Your task to perform on an android device: Go to CNN.com Image 0: 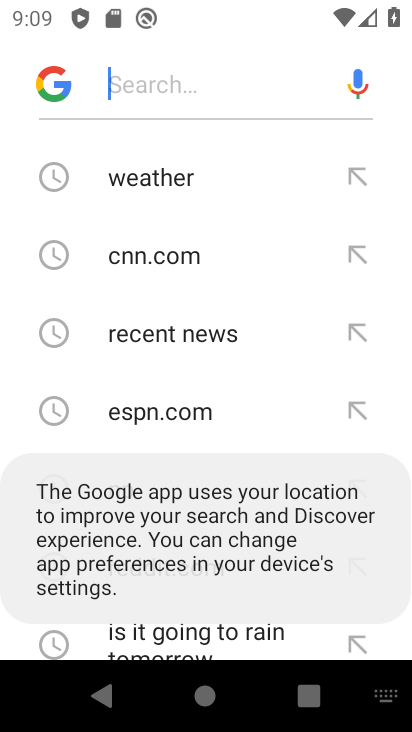
Step 0: press home button
Your task to perform on an android device: Go to CNN.com Image 1: 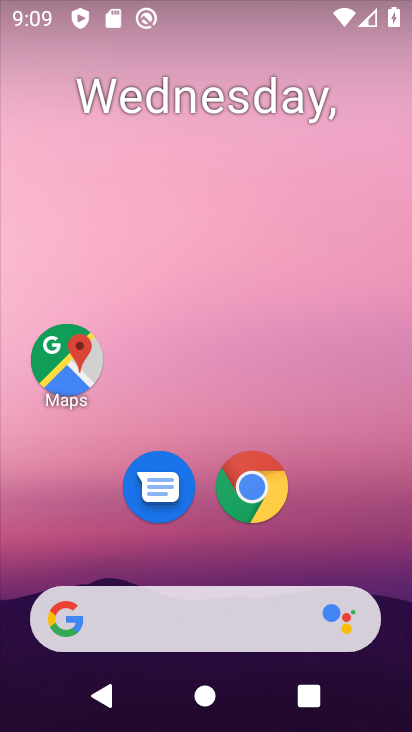
Step 1: drag from (327, 269) to (347, 45)
Your task to perform on an android device: Go to CNN.com Image 2: 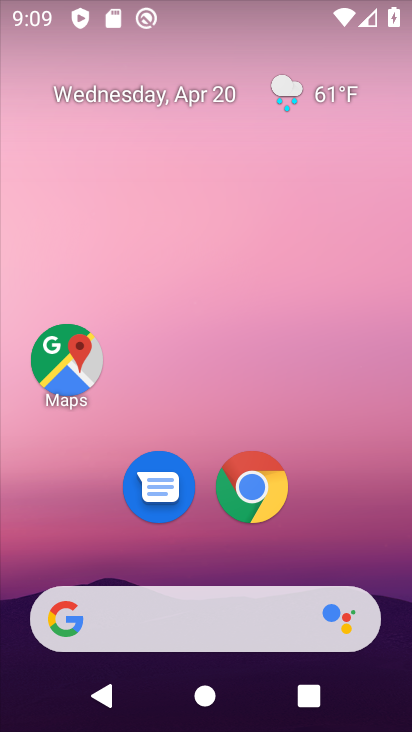
Step 2: click (236, 480)
Your task to perform on an android device: Go to CNN.com Image 3: 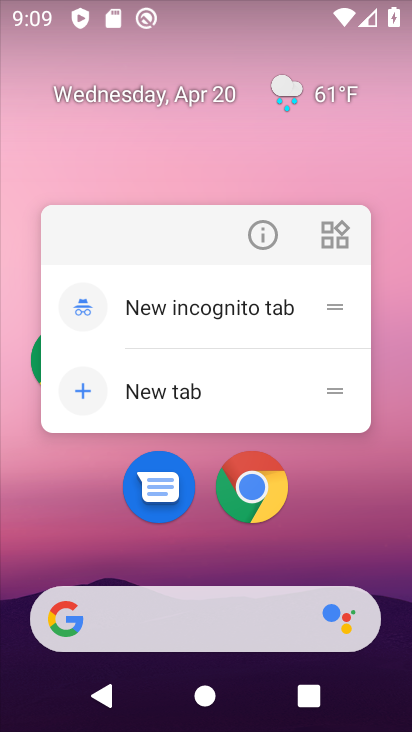
Step 3: click (230, 477)
Your task to perform on an android device: Go to CNN.com Image 4: 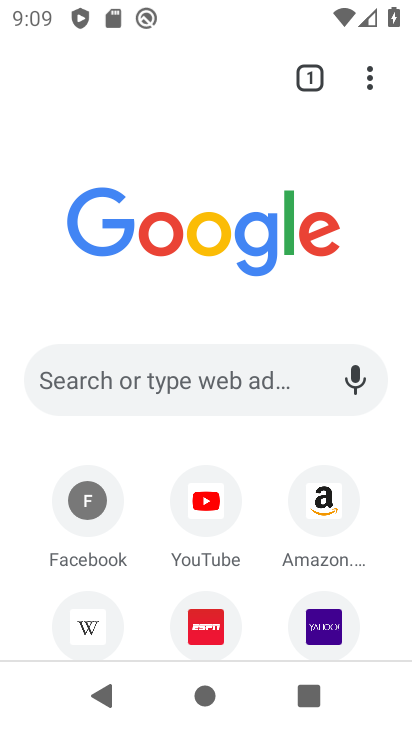
Step 4: click (202, 388)
Your task to perform on an android device: Go to CNN.com Image 5: 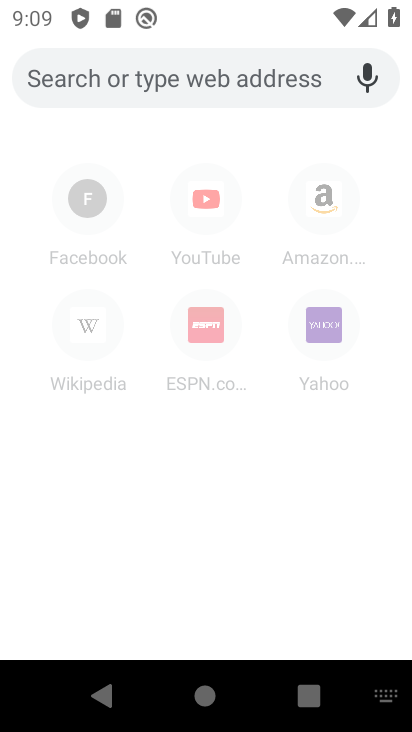
Step 5: type "CNN.com"
Your task to perform on an android device: Go to CNN.com Image 6: 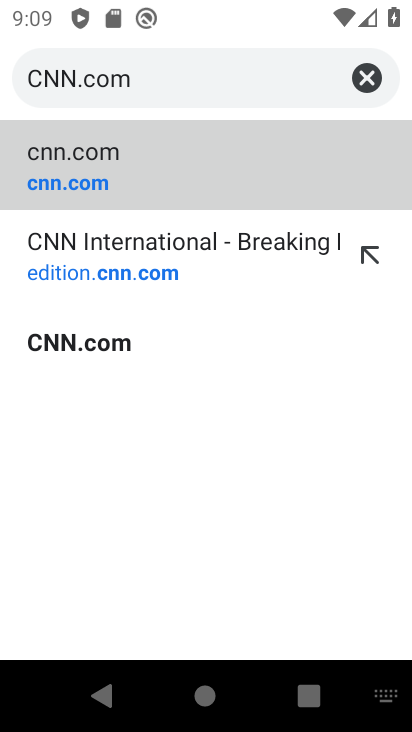
Step 6: click (44, 182)
Your task to perform on an android device: Go to CNN.com Image 7: 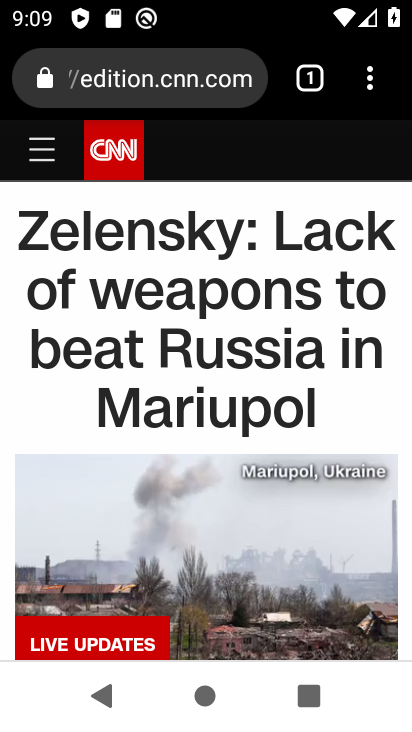
Step 7: task complete